Your task to perform on an android device: Open location settings Image 0: 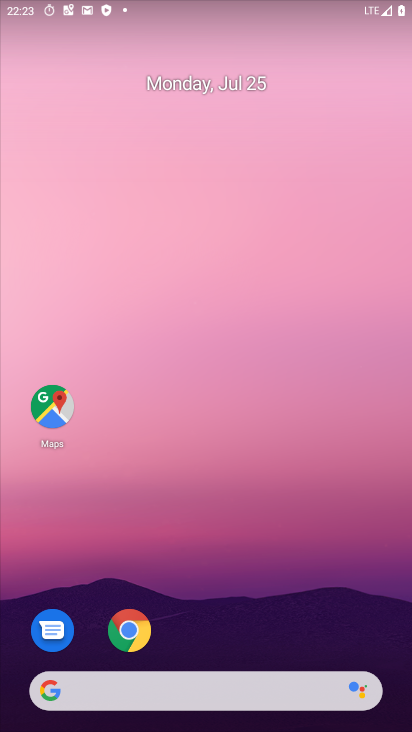
Step 0: press home button
Your task to perform on an android device: Open location settings Image 1: 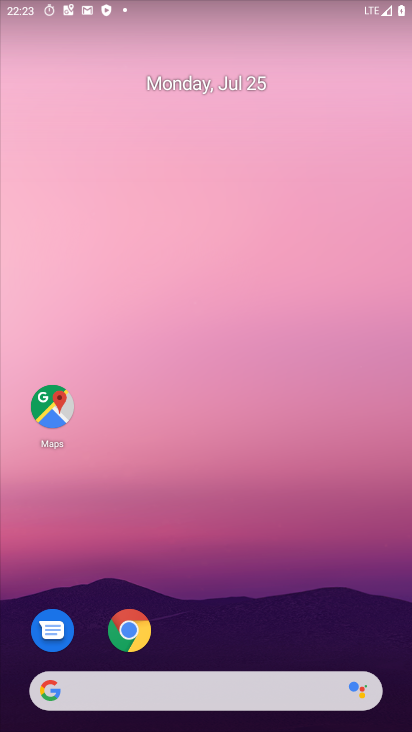
Step 1: drag from (282, 536) to (267, 49)
Your task to perform on an android device: Open location settings Image 2: 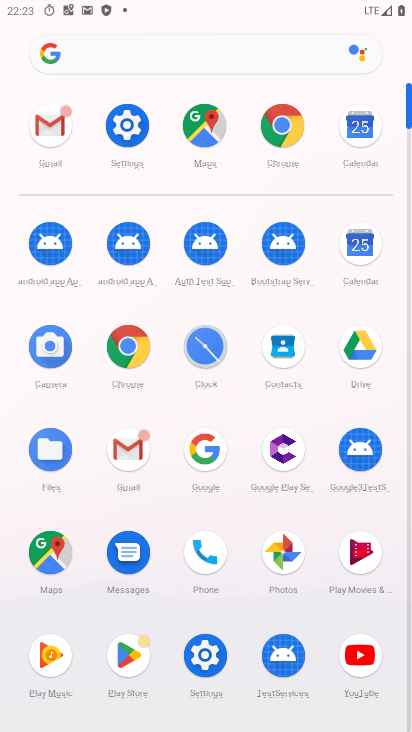
Step 2: click (129, 130)
Your task to perform on an android device: Open location settings Image 3: 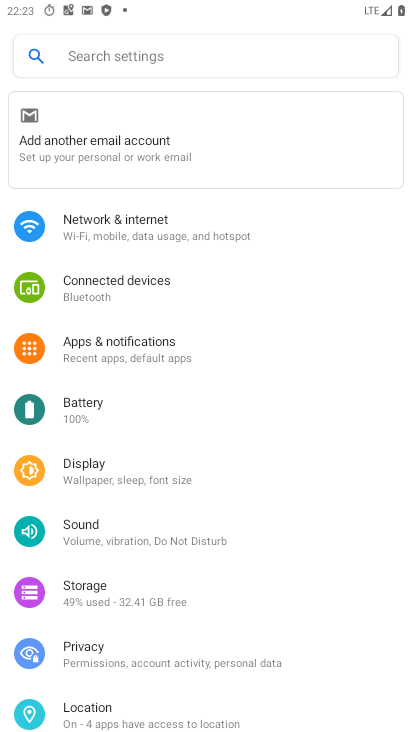
Step 3: click (115, 720)
Your task to perform on an android device: Open location settings Image 4: 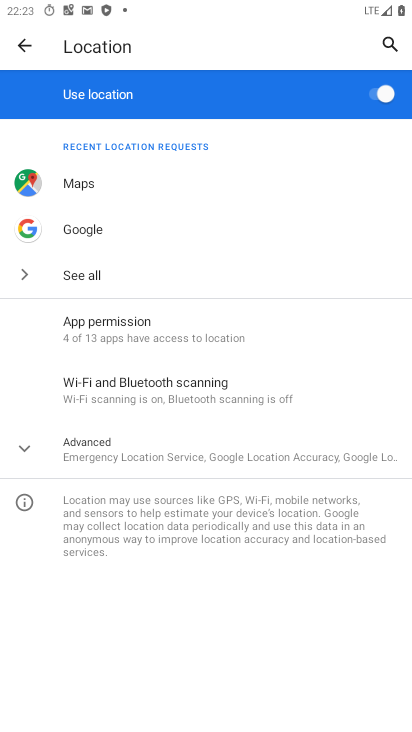
Step 4: task complete